Your task to perform on an android device: Is it going to rain this weekend? Image 0: 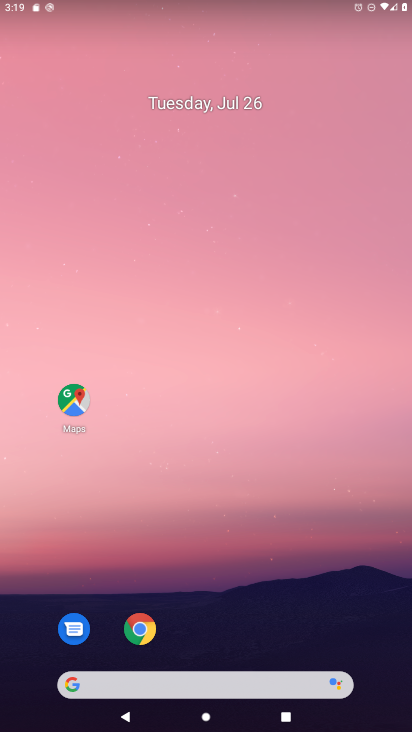
Step 0: drag from (215, 627) to (188, 223)
Your task to perform on an android device: Is it going to rain this weekend? Image 1: 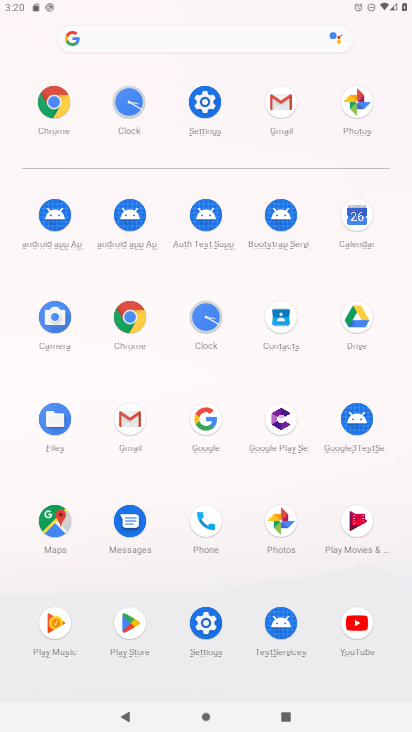
Step 1: click (211, 416)
Your task to perform on an android device: Is it going to rain this weekend? Image 2: 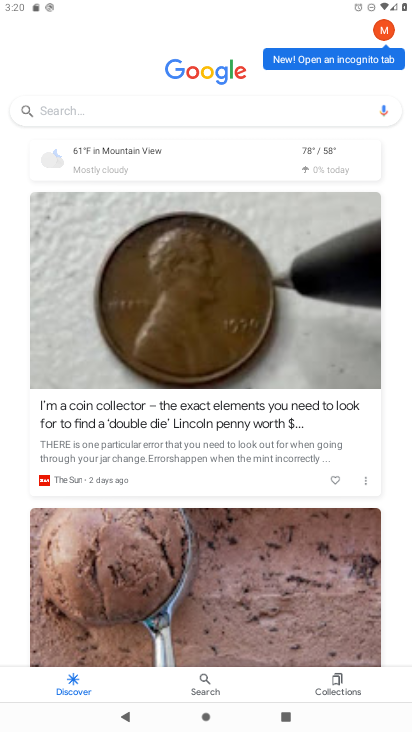
Step 2: click (103, 154)
Your task to perform on an android device: Is it going to rain this weekend? Image 3: 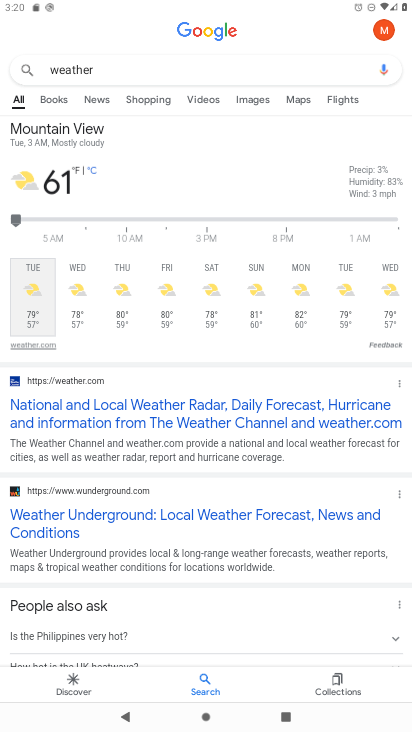
Step 3: task complete